Your task to perform on an android device: toggle data saver in the chrome app Image 0: 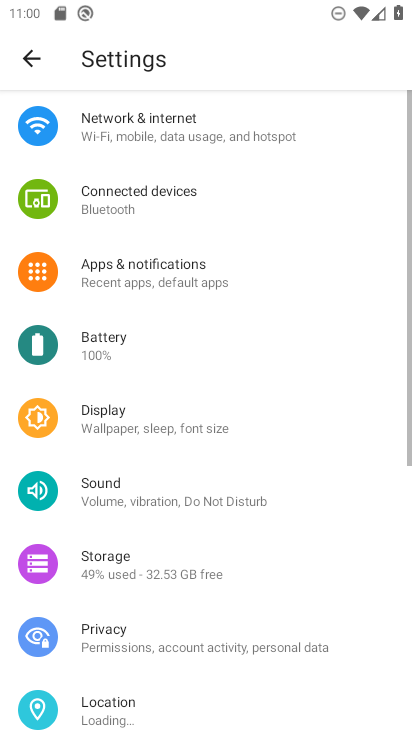
Step 0: press back button
Your task to perform on an android device: toggle data saver in the chrome app Image 1: 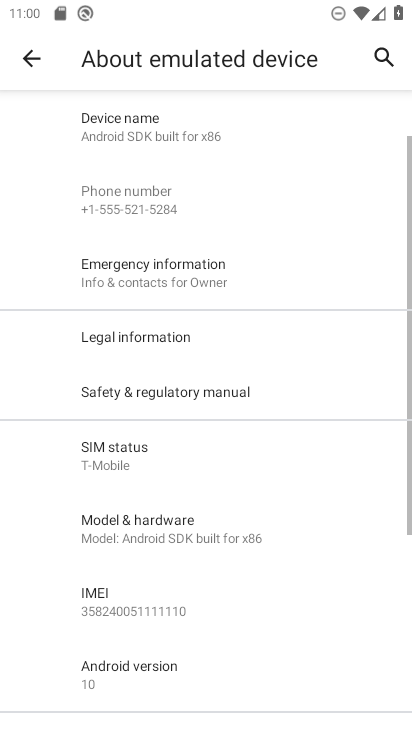
Step 1: press back button
Your task to perform on an android device: toggle data saver in the chrome app Image 2: 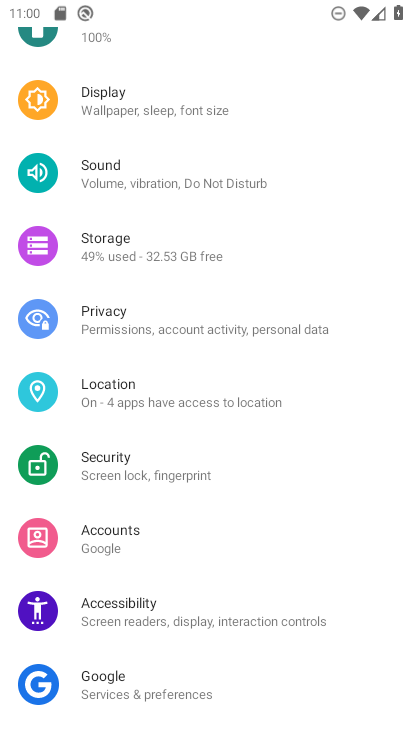
Step 2: press back button
Your task to perform on an android device: toggle data saver in the chrome app Image 3: 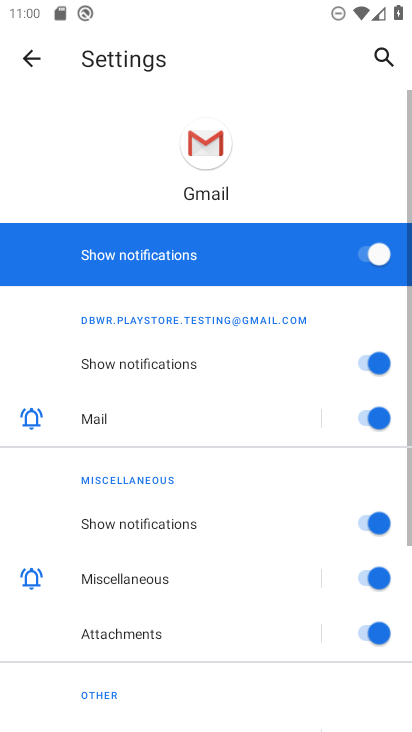
Step 3: press back button
Your task to perform on an android device: toggle data saver in the chrome app Image 4: 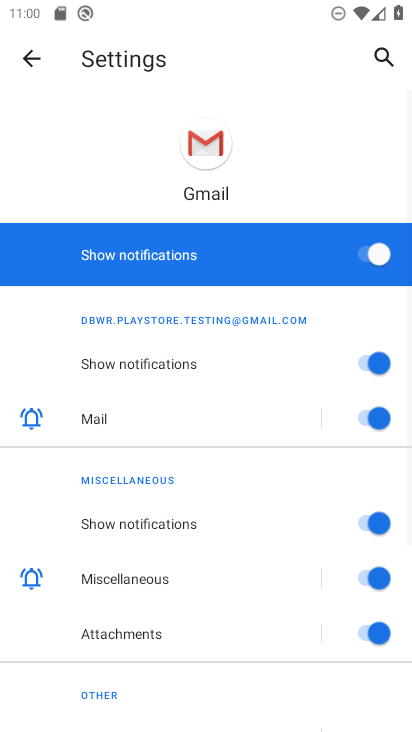
Step 4: press back button
Your task to perform on an android device: toggle data saver in the chrome app Image 5: 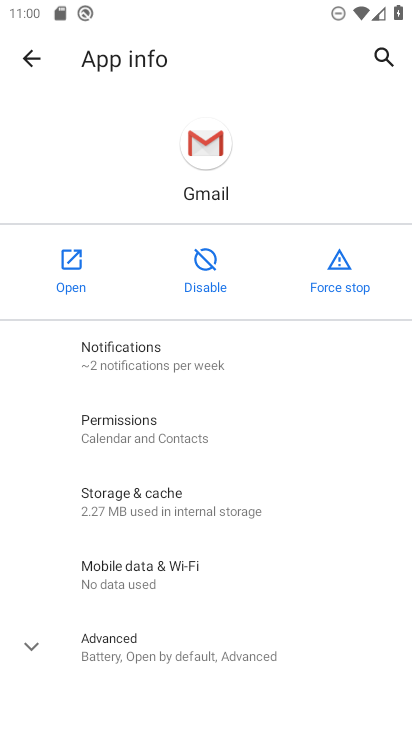
Step 5: press home button
Your task to perform on an android device: toggle data saver in the chrome app Image 6: 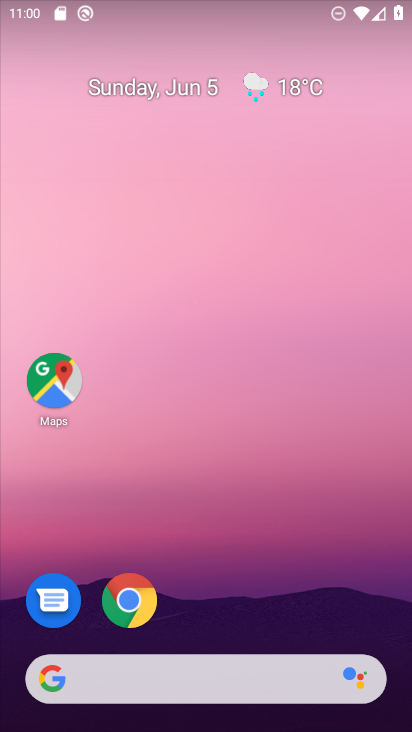
Step 6: click (124, 609)
Your task to perform on an android device: toggle data saver in the chrome app Image 7: 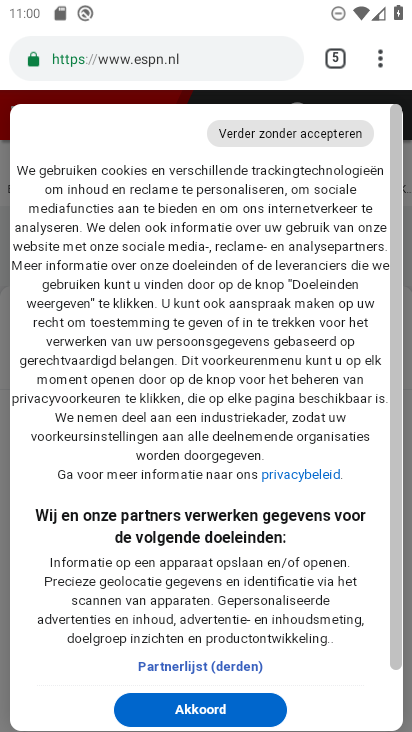
Step 7: drag from (378, 43) to (187, 621)
Your task to perform on an android device: toggle data saver in the chrome app Image 8: 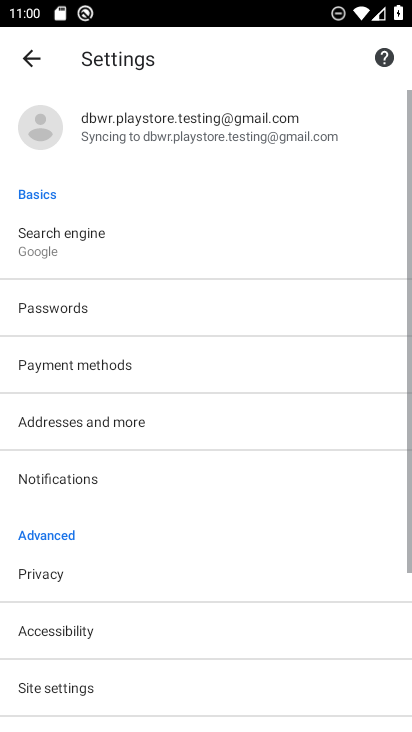
Step 8: drag from (172, 598) to (301, 80)
Your task to perform on an android device: toggle data saver in the chrome app Image 9: 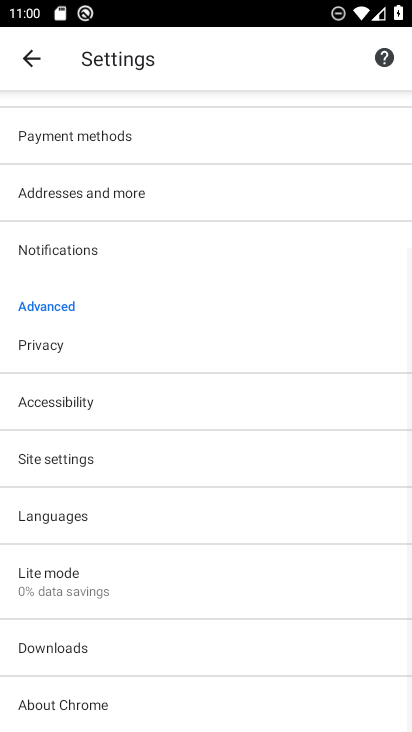
Step 9: click (64, 586)
Your task to perform on an android device: toggle data saver in the chrome app Image 10: 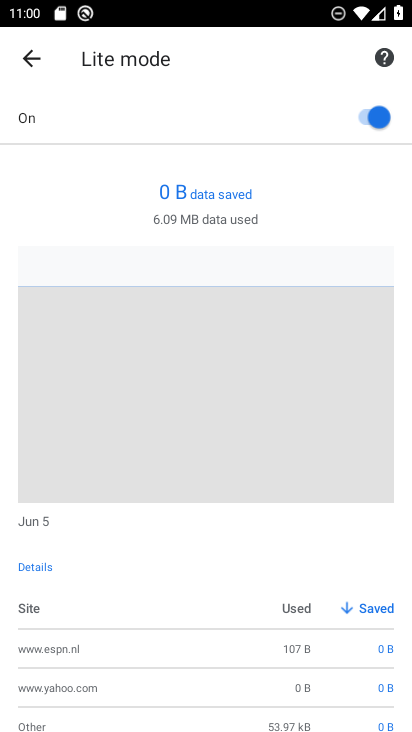
Step 10: click (374, 122)
Your task to perform on an android device: toggle data saver in the chrome app Image 11: 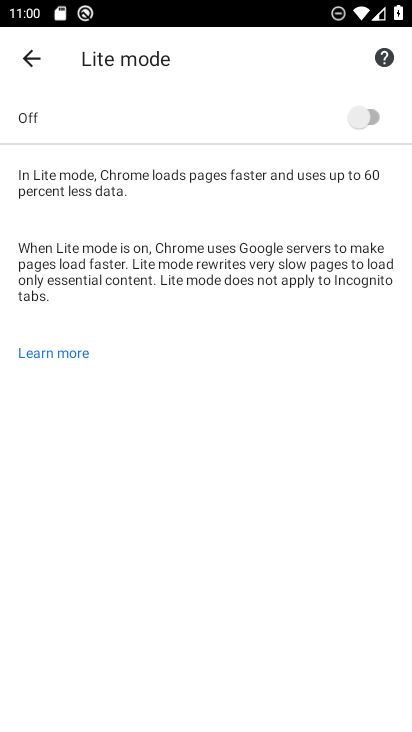
Step 11: task complete